Your task to perform on an android device: Search for pizza restaurants on Maps Image 0: 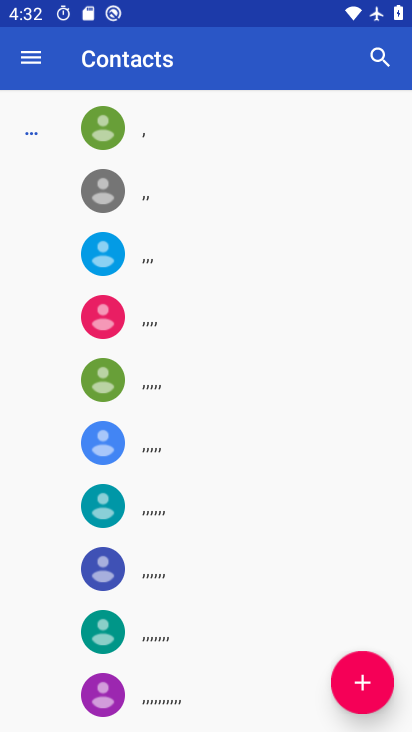
Step 0: press back button
Your task to perform on an android device: Search for pizza restaurants on Maps Image 1: 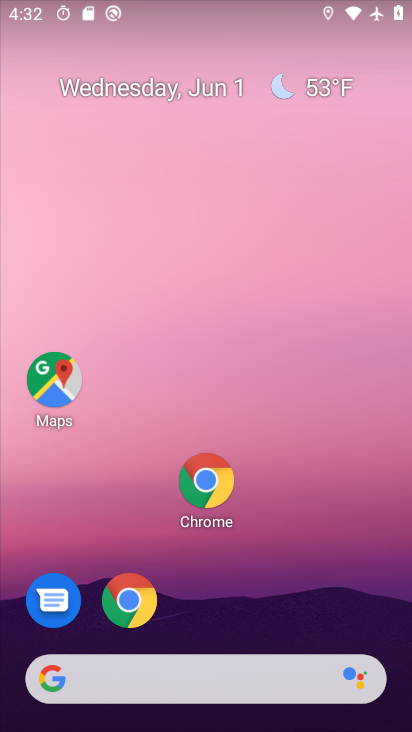
Step 1: drag from (246, 594) to (125, 132)
Your task to perform on an android device: Search for pizza restaurants on Maps Image 2: 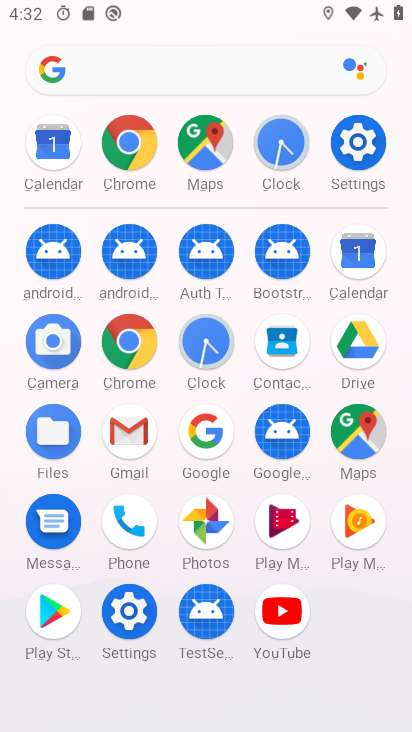
Step 2: click (351, 437)
Your task to perform on an android device: Search for pizza restaurants on Maps Image 3: 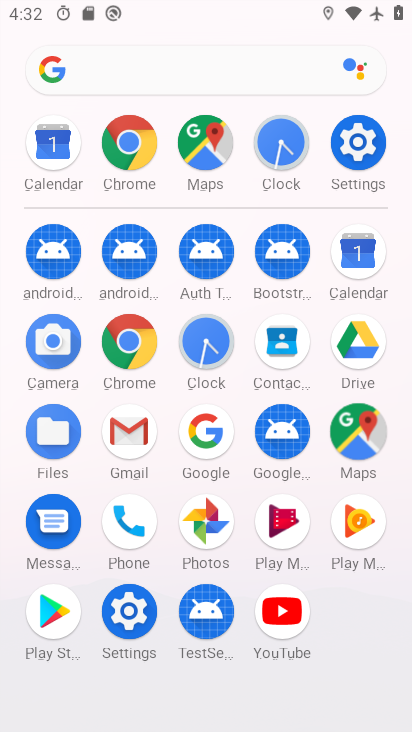
Step 3: click (351, 437)
Your task to perform on an android device: Search for pizza restaurants on Maps Image 4: 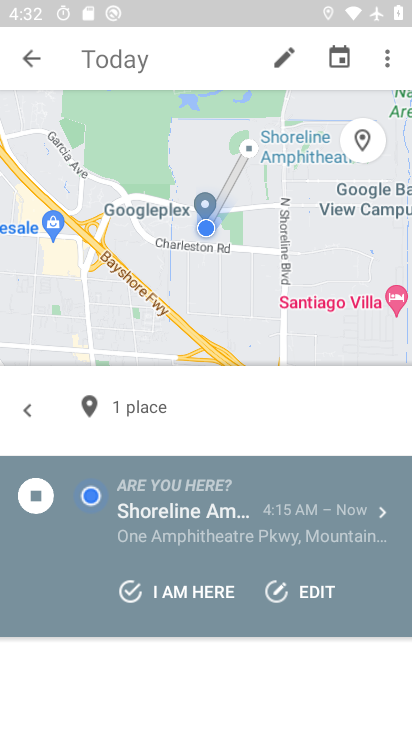
Step 4: click (83, 59)
Your task to perform on an android device: Search for pizza restaurants on Maps Image 5: 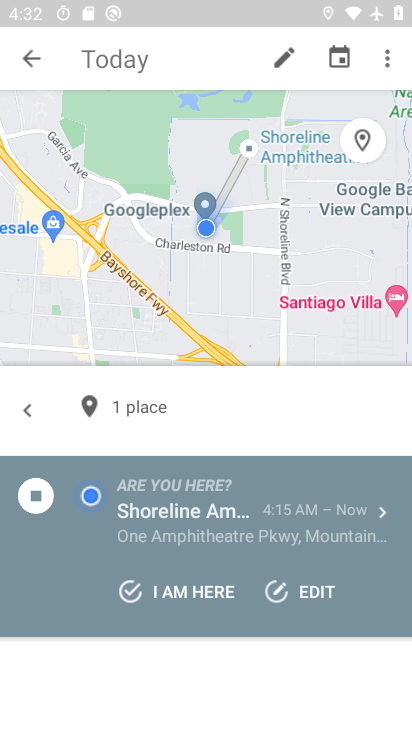
Step 5: click (83, 59)
Your task to perform on an android device: Search for pizza restaurants on Maps Image 6: 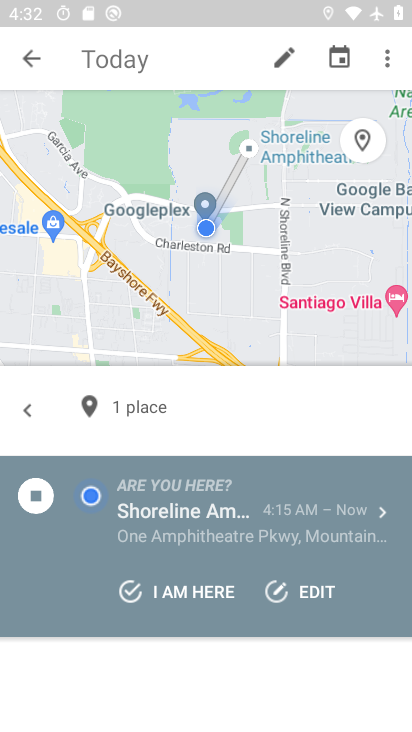
Step 6: click (89, 50)
Your task to perform on an android device: Search for pizza restaurants on Maps Image 7: 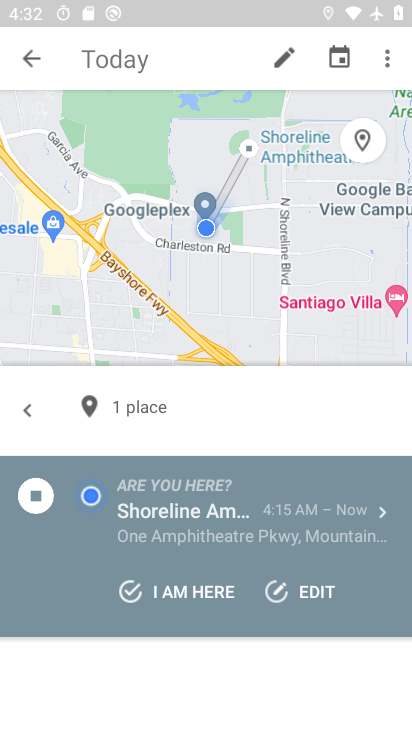
Step 7: click (90, 49)
Your task to perform on an android device: Search for pizza restaurants on Maps Image 8: 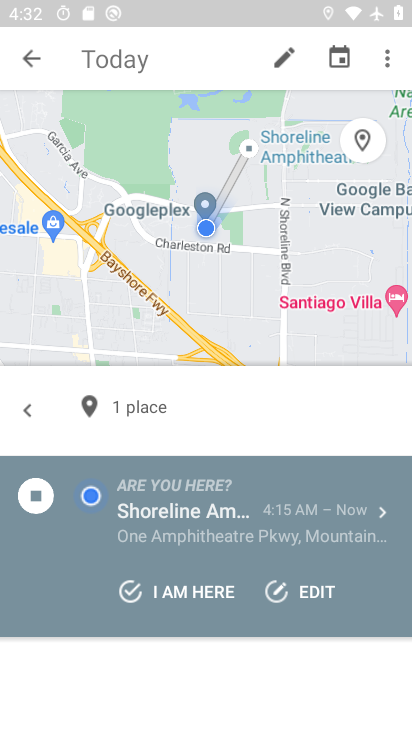
Step 8: click (95, 51)
Your task to perform on an android device: Search for pizza restaurants on Maps Image 9: 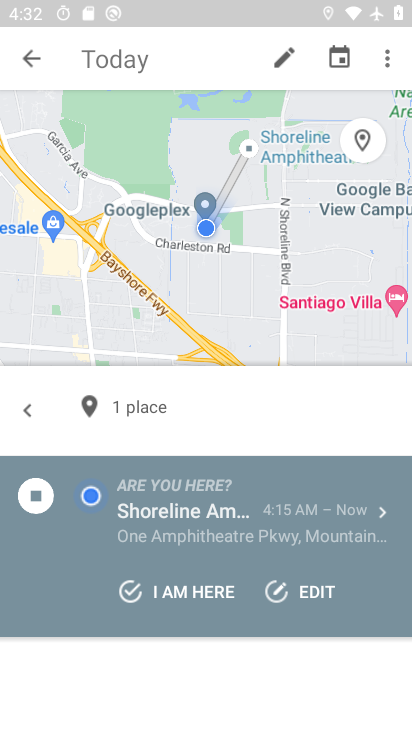
Step 9: drag from (86, 45) to (85, 81)
Your task to perform on an android device: Search for pizza restaurants on Maps Image 10: 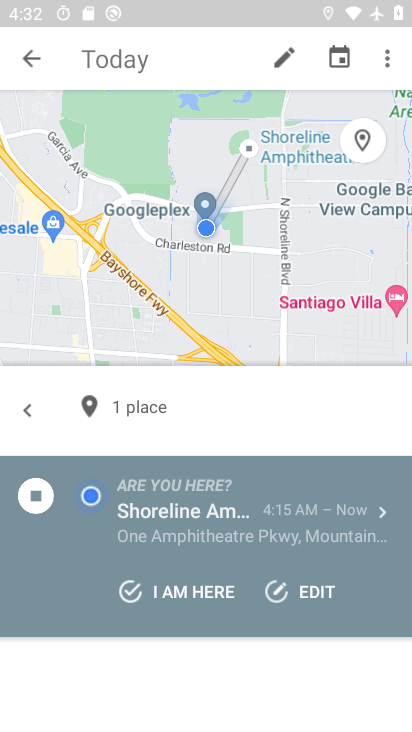
Step 10: click (85, 81)
Your task to perform on an android device: Search for pizza restaurants on Maps Image 11: 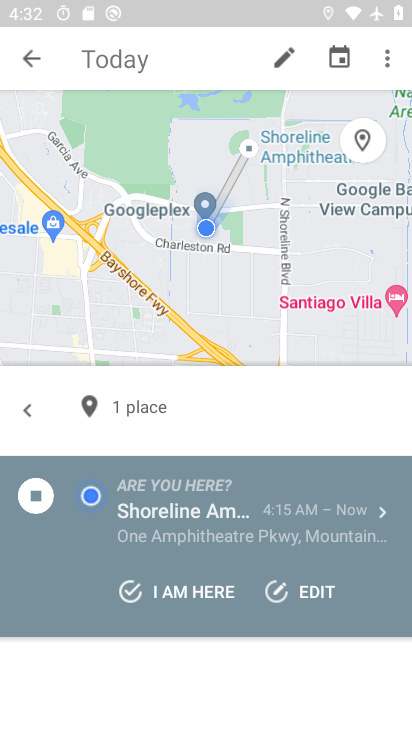
Step 11: click (87, 57)
Your task to perform on an android device: Search for pizza restaurants on Maps Image 12: 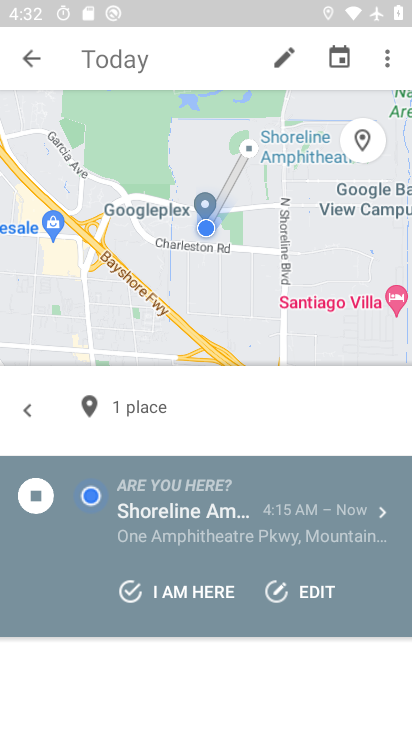
Step 12: click (79, 39)
Your task to perform on an android device: Search for pizza restaurants on Maps Image 13: 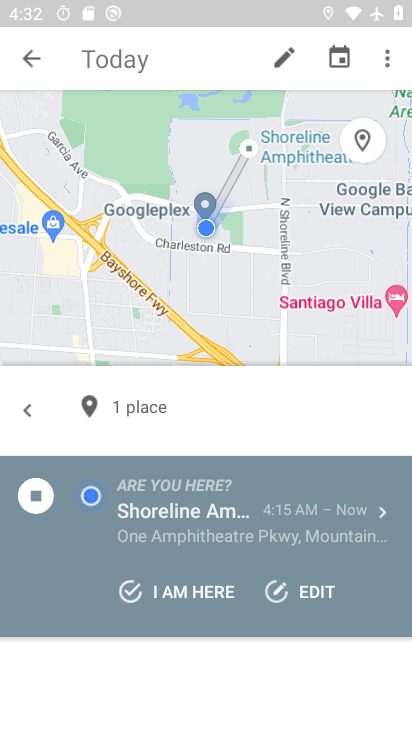
Step 13: click (79, 40)
Your task to perform on an android device: Search for pizza restaurants on Maps Image 14: 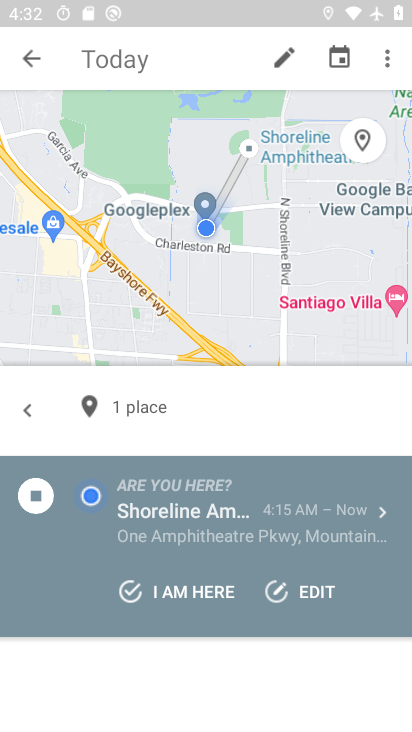
Step 14: click (73, 42)
Your task to perform on an android device: Search for pizza restaurants on Maps Image 15: 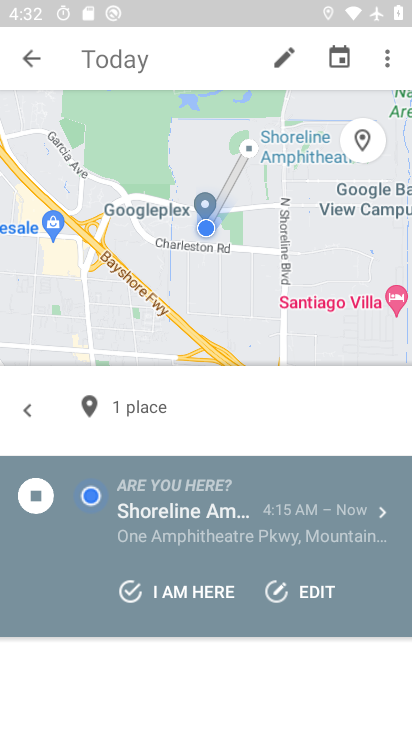
Step 15: click (86, 54)
Your task to perform on an android device: Search for pizza restaurants on Maps Image 16: 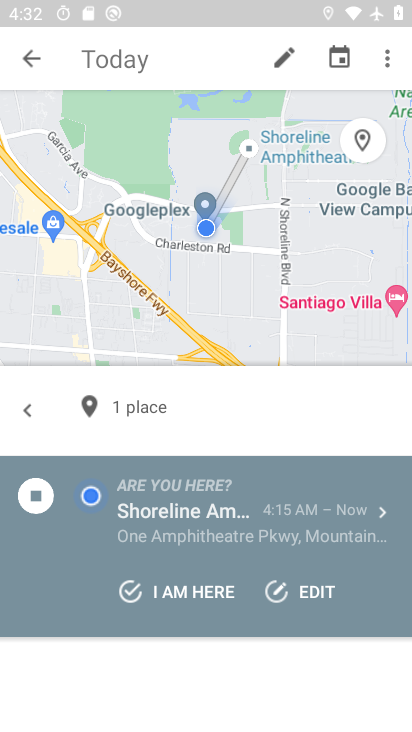
Step 16: click (86, 54)
Your task to perform on an android device: Search for pizza restaurants on Maps Image 17: 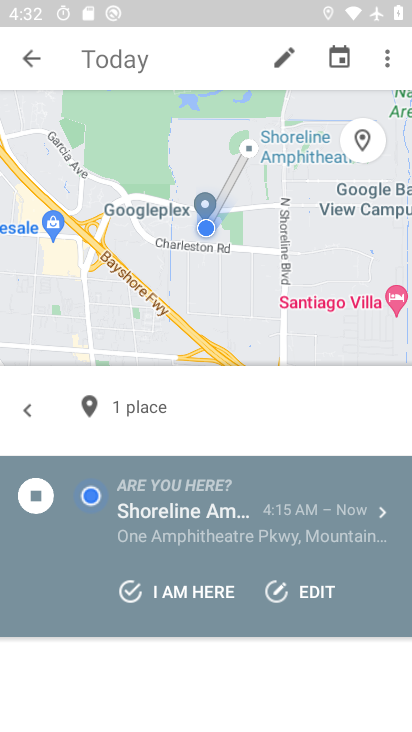
Step 17: click (88, 55)
Your task to perform on an android device: Search for pizza restaurants on Maps Image 18: 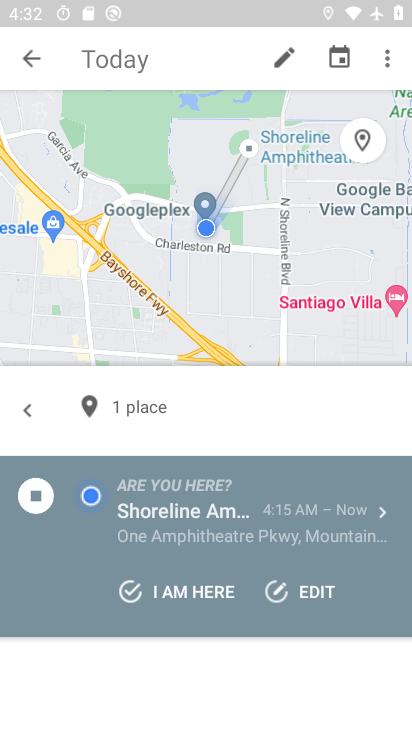
Step 18: click (88, 55)
Your task to perform on an android device: Search for pizza restaurants on Maps Image 19: 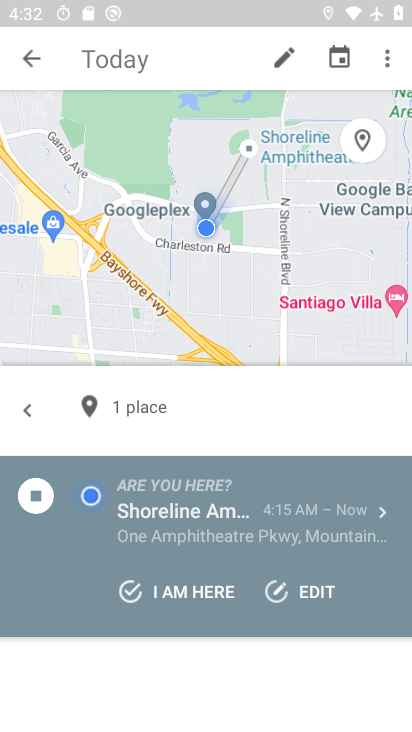
Step 19: click (82, 58)
Your task to perform on an android device: Search for pizza restaurants on Maps Image 20: 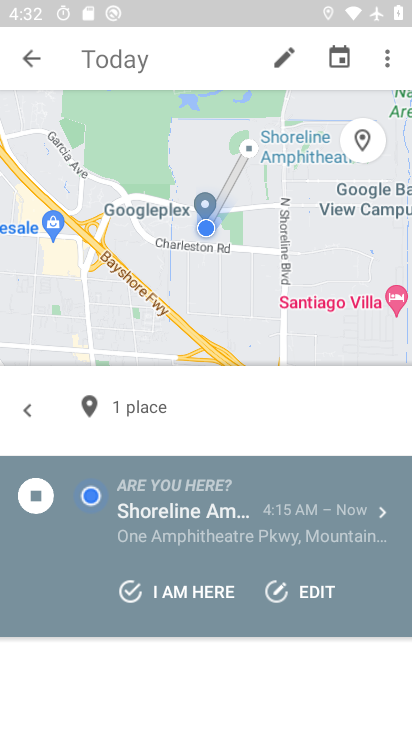
Step 20: click (79, 71)
Your task to perform on an android device: Search for pizza restaurants on Maps Image 21: 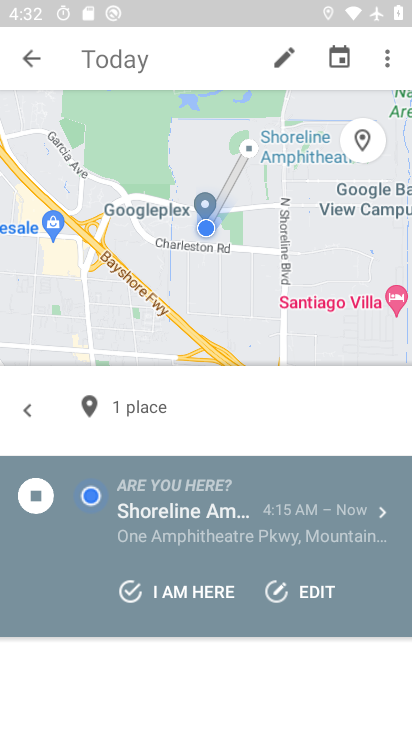
Step 21: click (78, 61)
Your task to perform on an android device: Search for pizza restaurants on Maps Image 22: 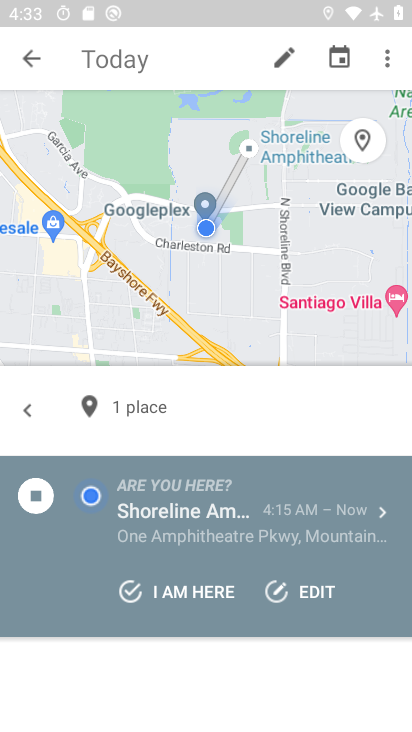
Step 22: type "pizza restaurants"
Your task to perform on an android device: Search for pizza restaurants on Maps Image 23: 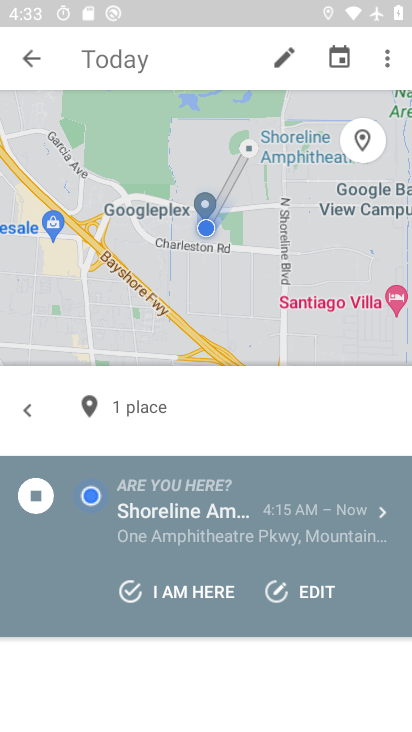
Step 23: click (275, 67)
Your task to perform on an android device: Search for pizza restaurants on Maps Image 24: 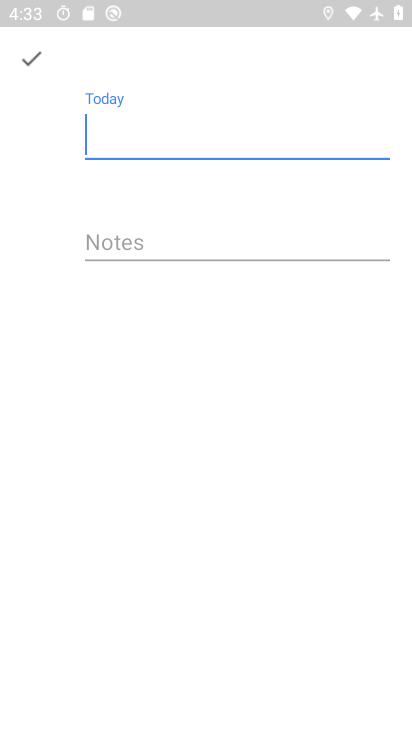
Step 24: click (35, 48)
Your task to perform on an android device: Search for pizza restaurants on Maps Image 25: 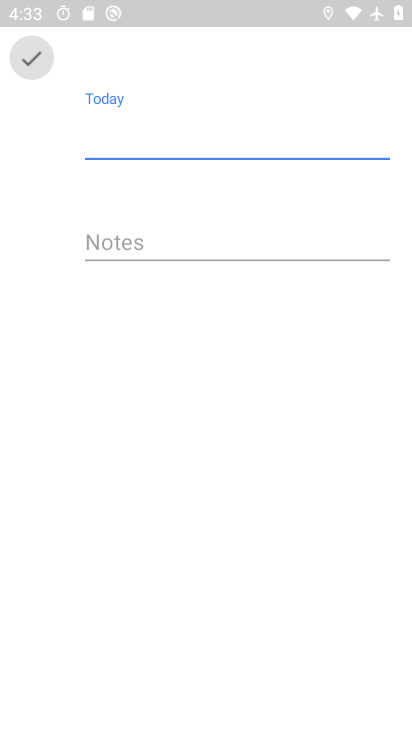
Step 25: click (35, 48)
Your task to perform on an android device: Search for pizza restaurants on Maps Image 26: 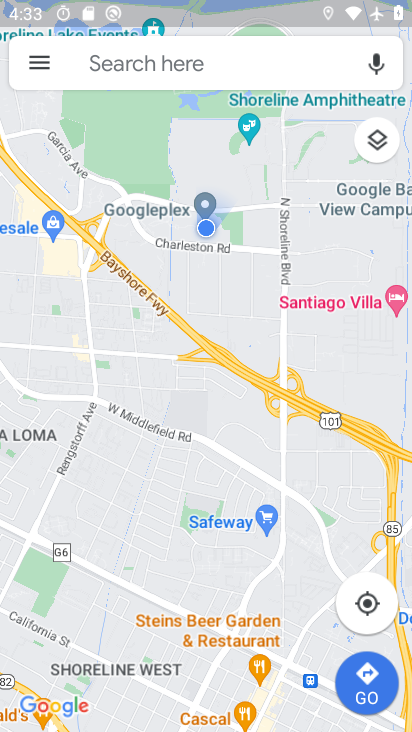
Step 26: click (81, 46)
Your task to perform on an android device: Search for pizza restaurants on Maps Image 27: 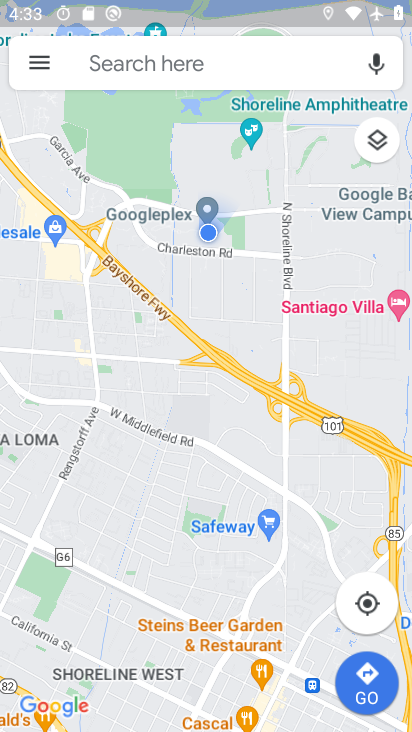
Step 27: click (88, 59)
Your task to perform on an android device: Search for pizza restaurants on Maps Image 28: 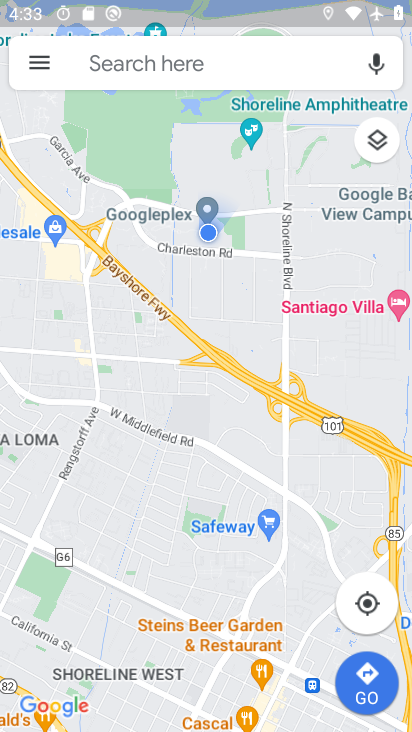
Step 28: click (88, 59)
Your task to perform on an android device: Search for pizza restaurants on Maps Image 29: 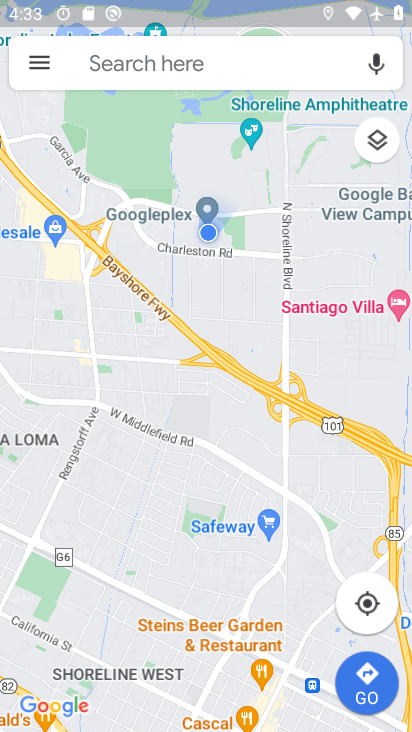
Step 29: click (95, 52)
Your task to perform on an android device: Search for pizza restaurants on Maps Image 30: 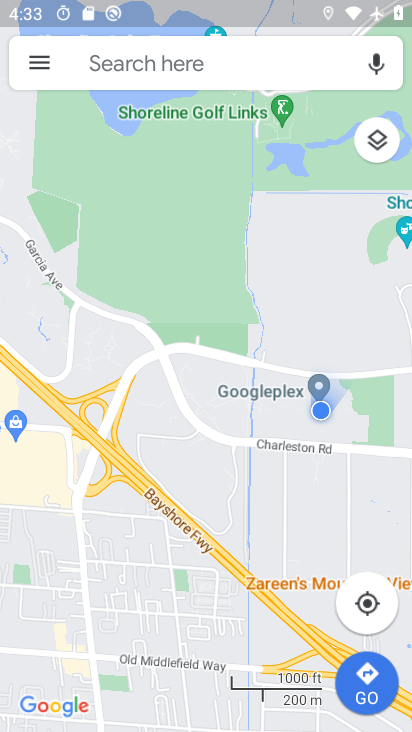
Step 30: click (95, 52)
Your task to perform on an android device: Search for pizza restaurants on Maps Image 31: 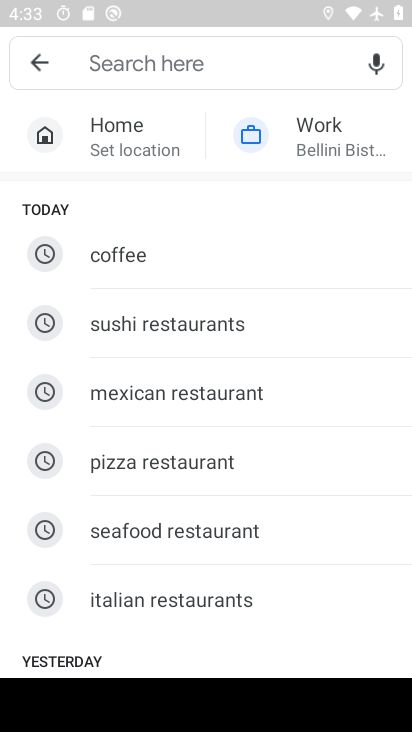
Step 31: click (155, 467)
Your task to perform on an android device: Search for pizza restaurants on Maps Image 32: 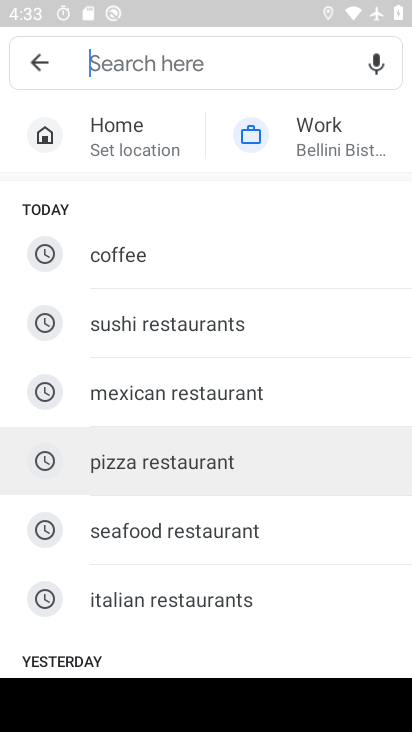
Step 32: click (155, 467)
Your task to perform on an android device: Search for pizza restaurants on Maps Image 33: 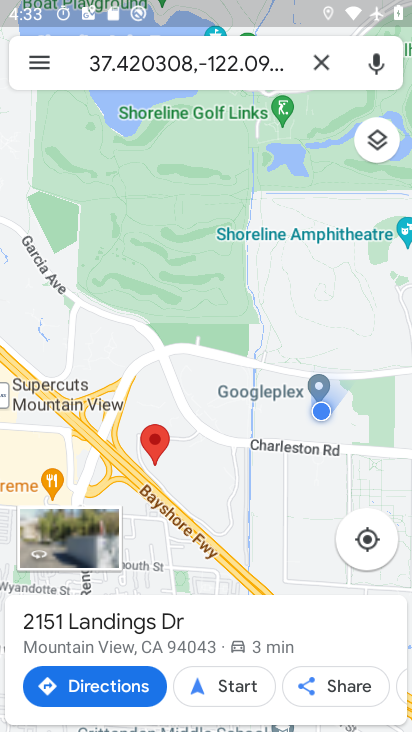
Step 33: task complete